Your task to perform on an android device: Open the stopwatch Image 0: 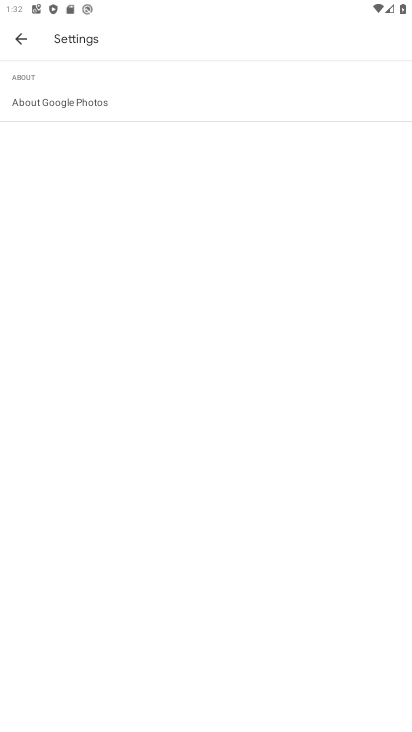
Step 0: press home button
Your task to perform on an android device: Open the stopwatch Image 1: 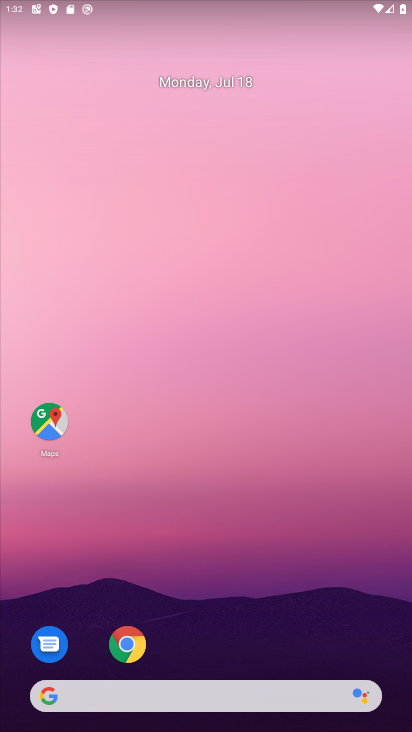
Step 1: drag from (301, 547) to (323, 200)
Your task to perform on an android device: Open the stopwatch Image 2: 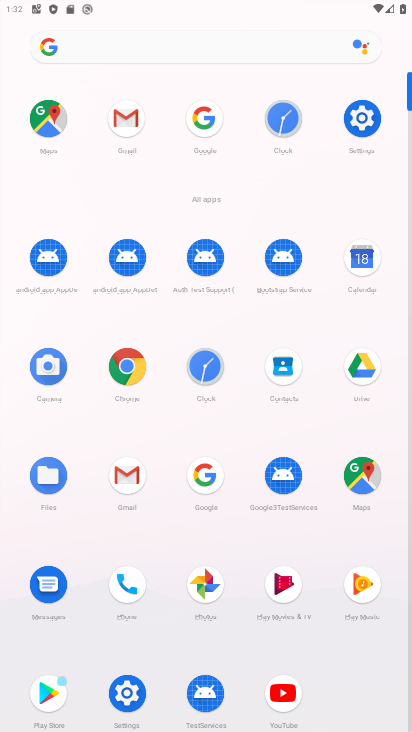
Step 2: click (203, 362)
Your task to perform on an android device: Open the stopwatch Image 3: 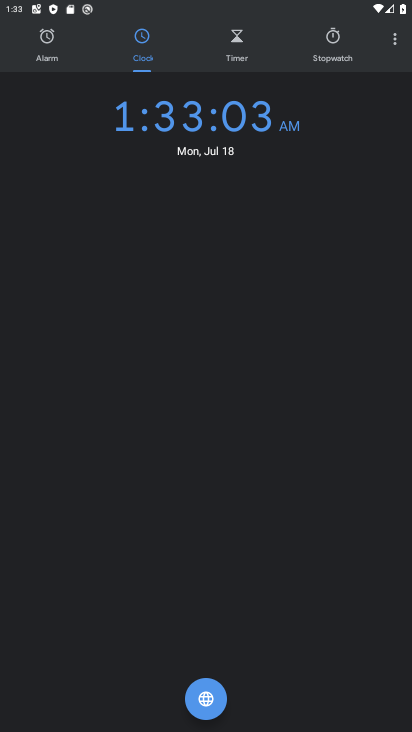
Step 3: click (334, 58)
Your task to perform on an android device: Open the stopwatch Image 4: 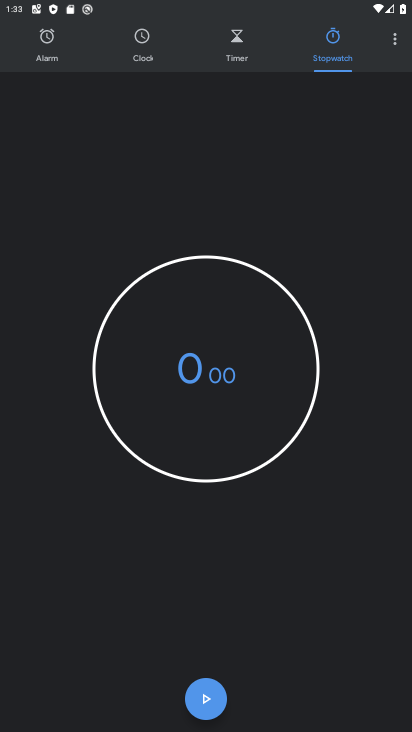
Step 4: click (200, 702)
Your task to perform on an android device: Open the stopwatch Image 5: 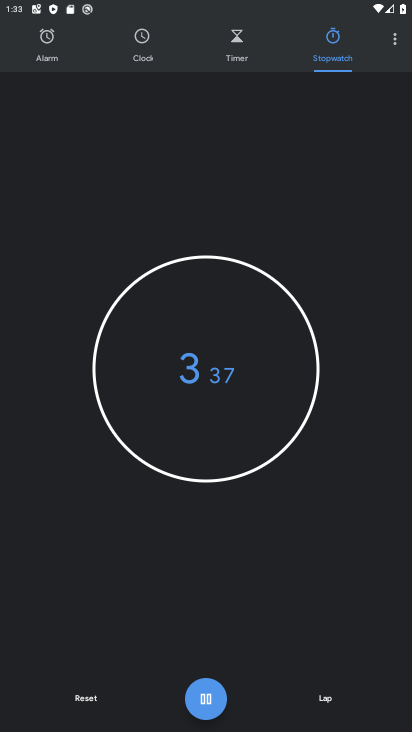
Step 5: task complete